Your task to perform on an android device: Where can I buy a nice beach sandals? Image 0: 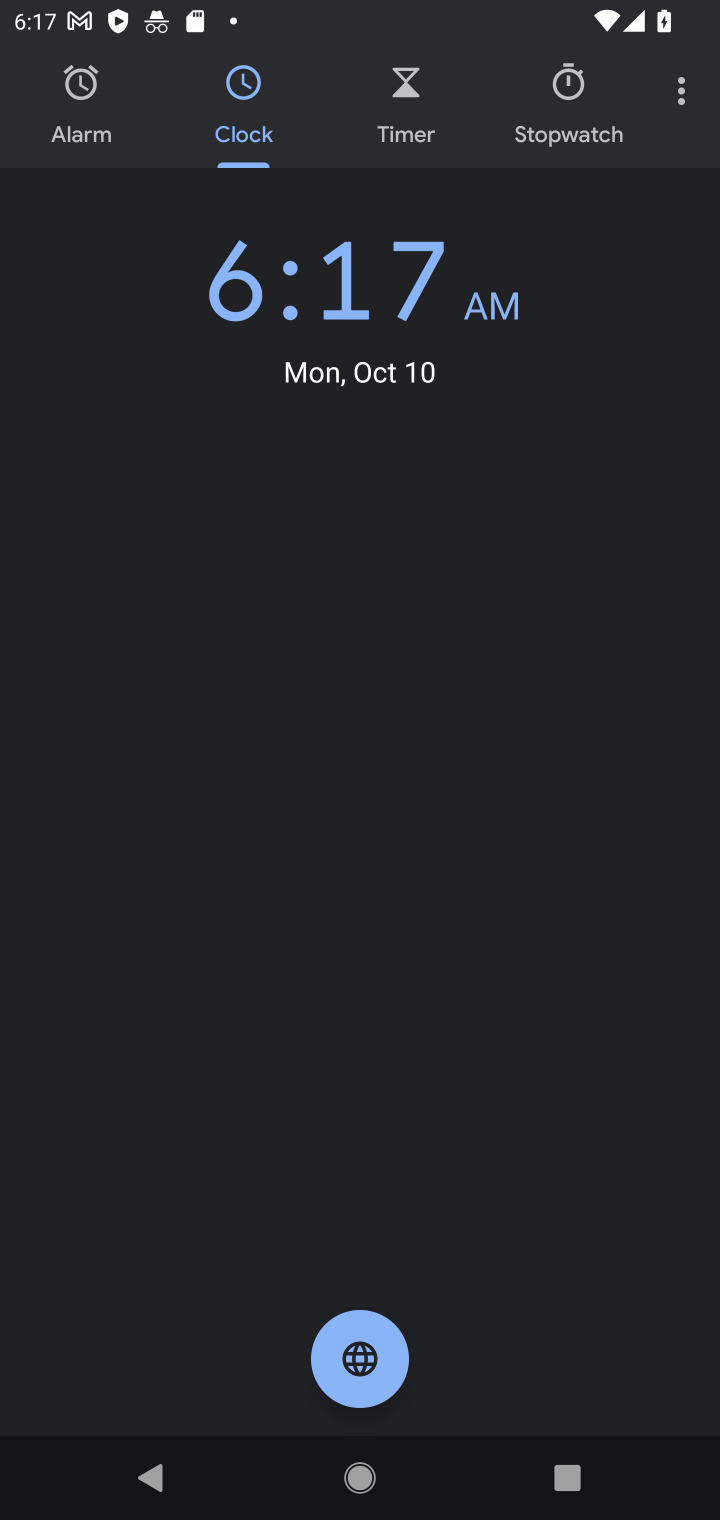
Step 0: press home button
Your task to perform on an android device: Where can I buy a nice beach sandals? Image 1: 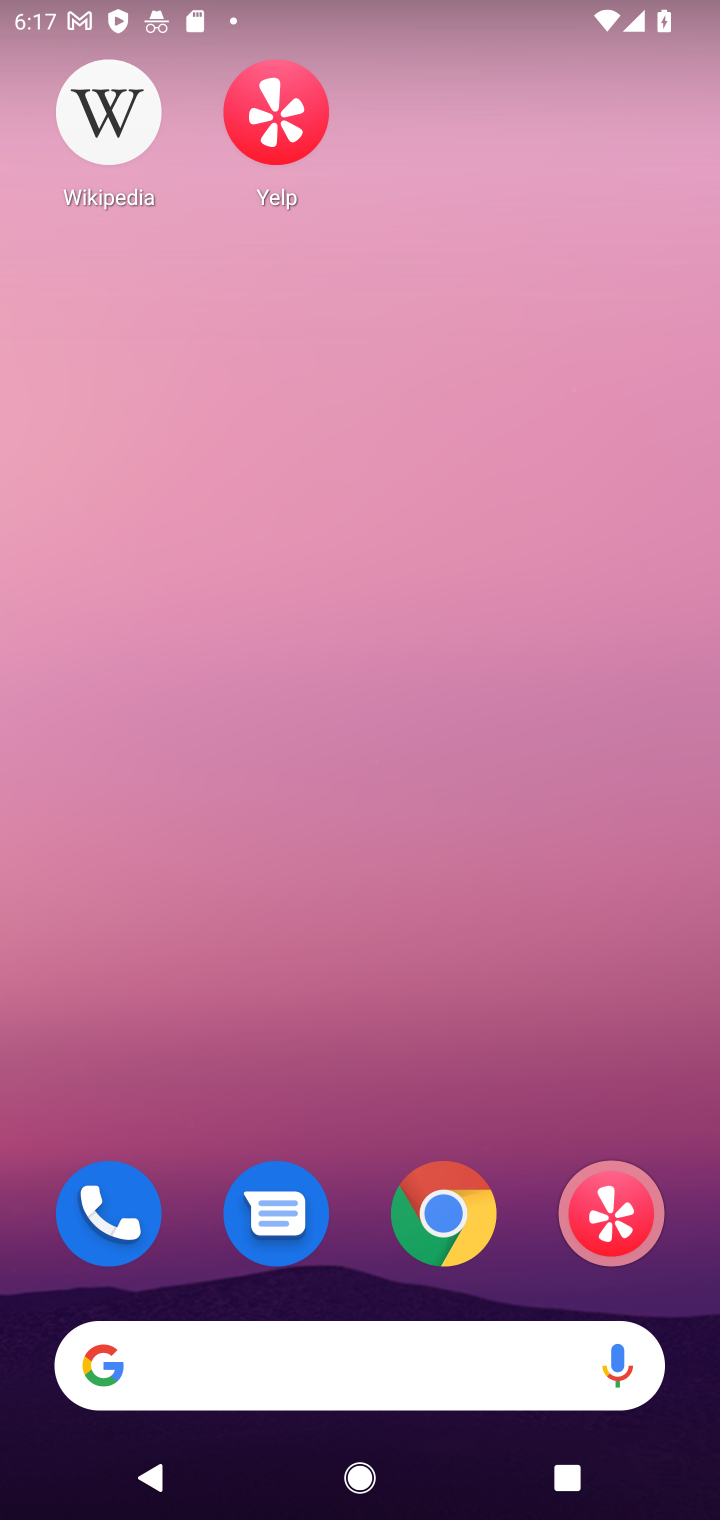
Step 1: drag from (385, 1073) to (258, 11)
Your task to perform on an android device: Where can I buy a nice beach sandals? Image 2: 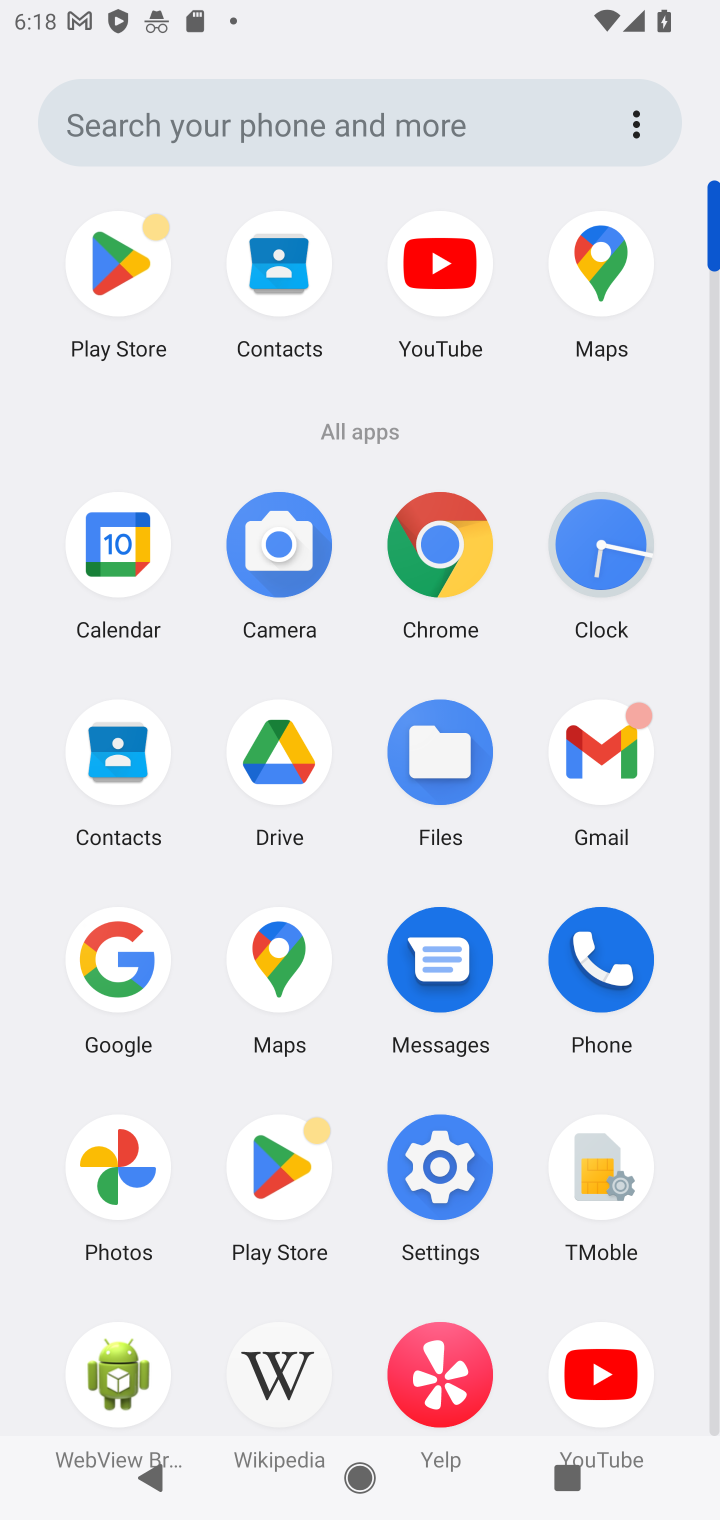
Step 2: click (128, 945)
Your task to perform on an android device: Where can I buy a nice beach sandals? Image 3: 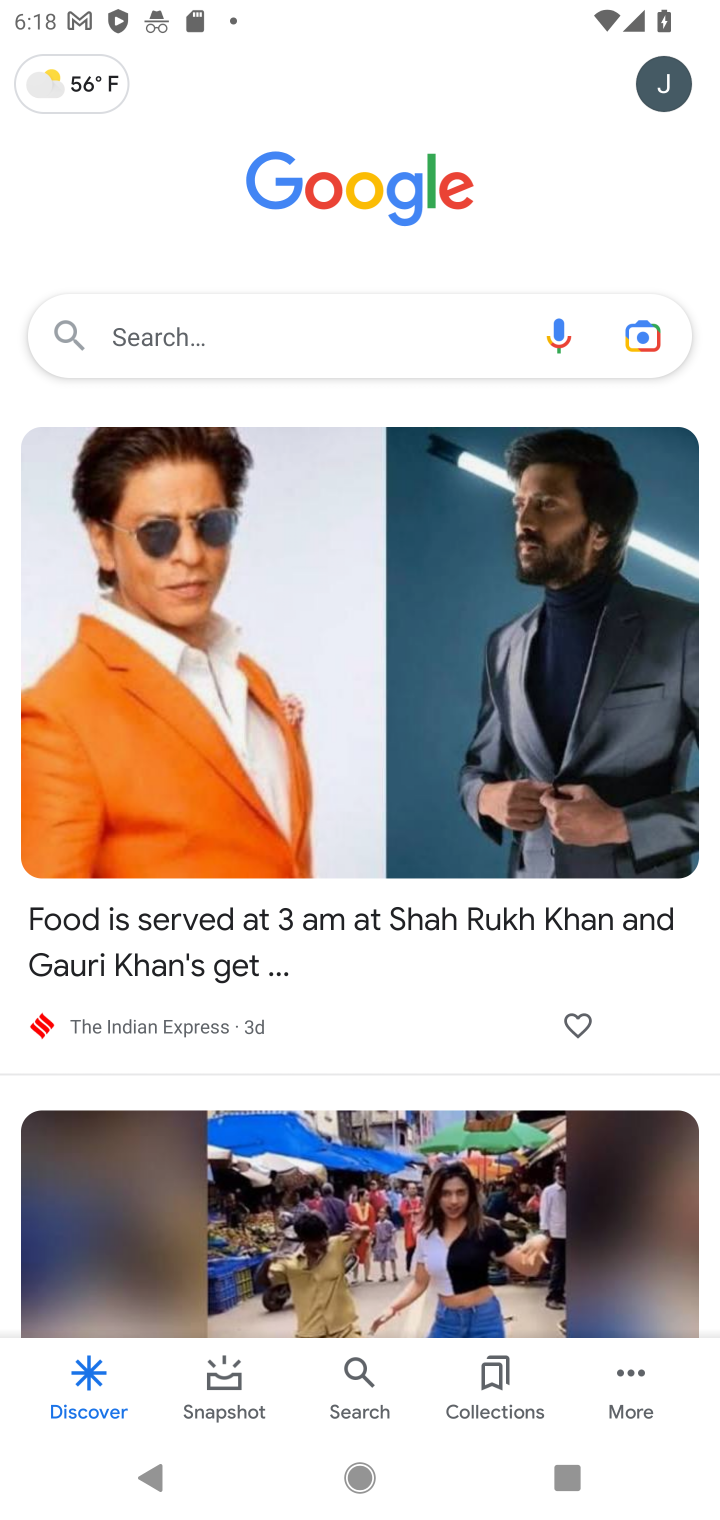
Step 3: click (281, 334)
Your task to perform on an android device: Where can I buy a nice beach sandals? Image 4: 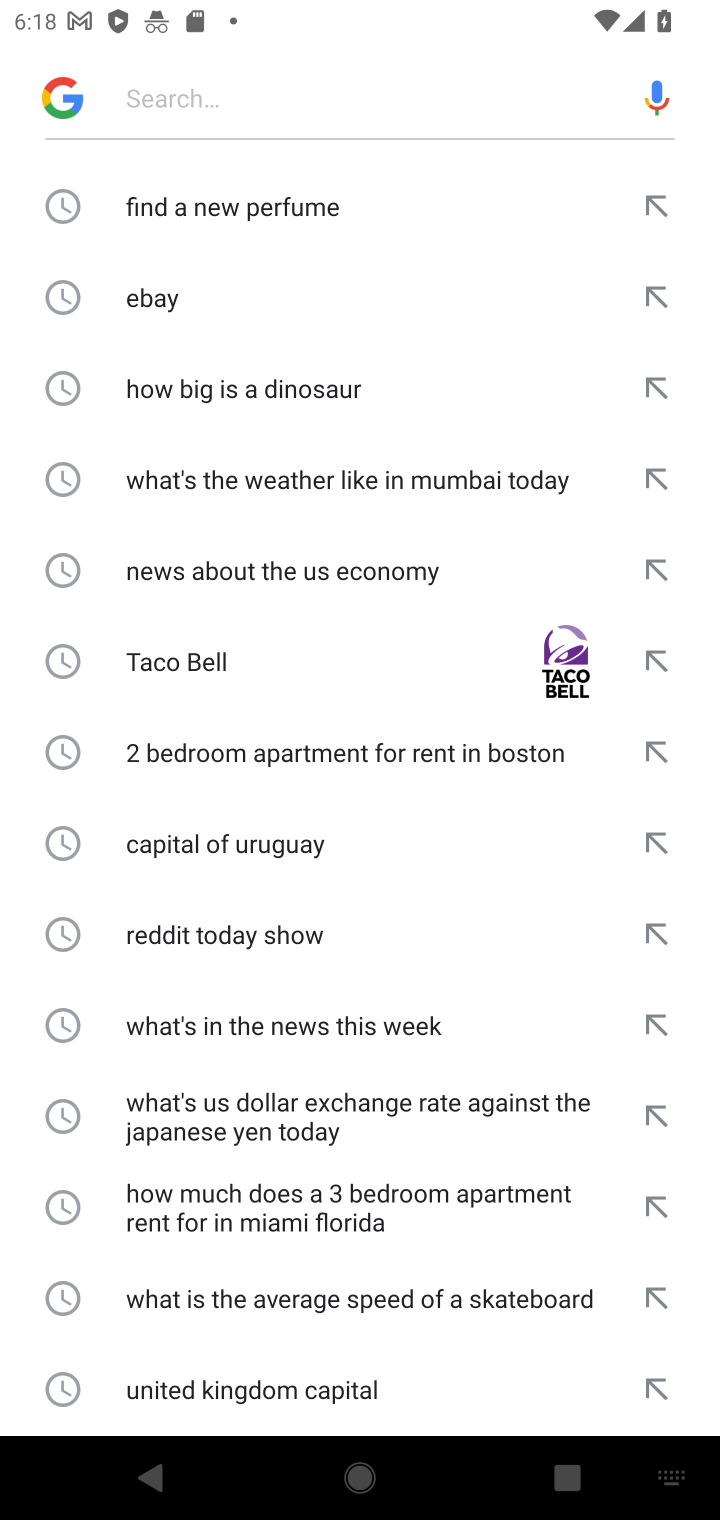
Step 4: click (194, 106)
Your task to perform on an android device: Where can I buy a nice beach sandals? Image 5: 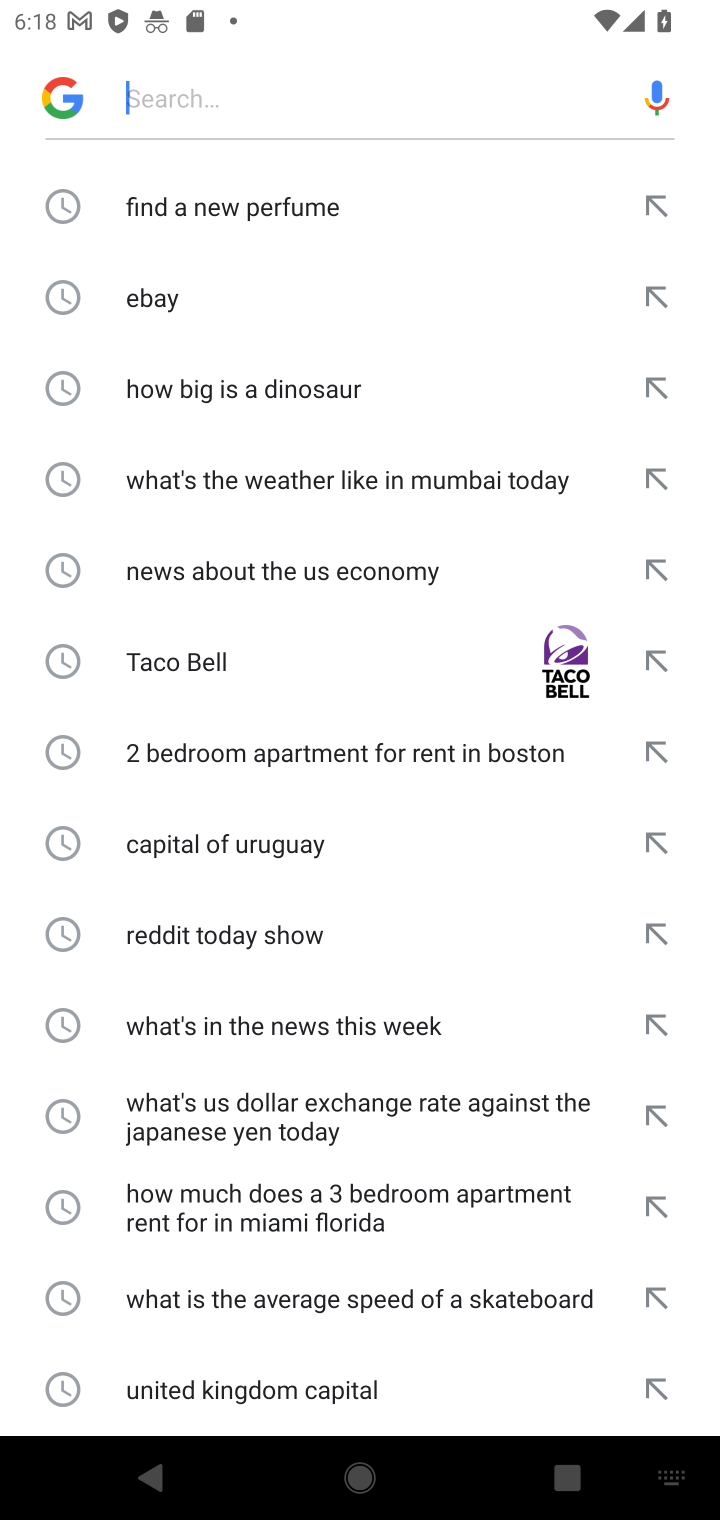
Step 5: type "Where can I buy a nice beach sandals?"
Your task to perform on an android device: Where can I buy a nice beach sandals? Image 6: 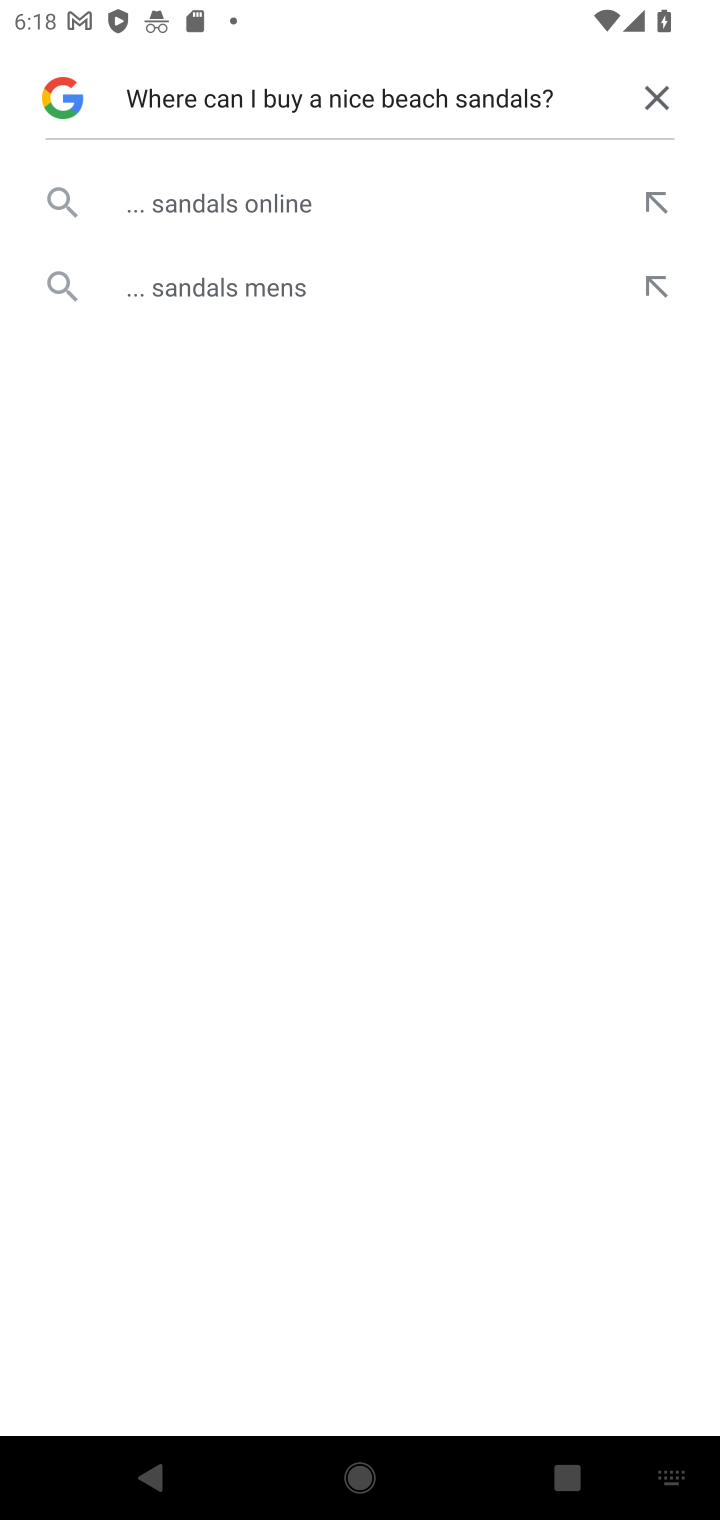
Step 6: click (355, 205)
Your task to perform on an android device: Where can I buy a nice beach sandals? Image 7: 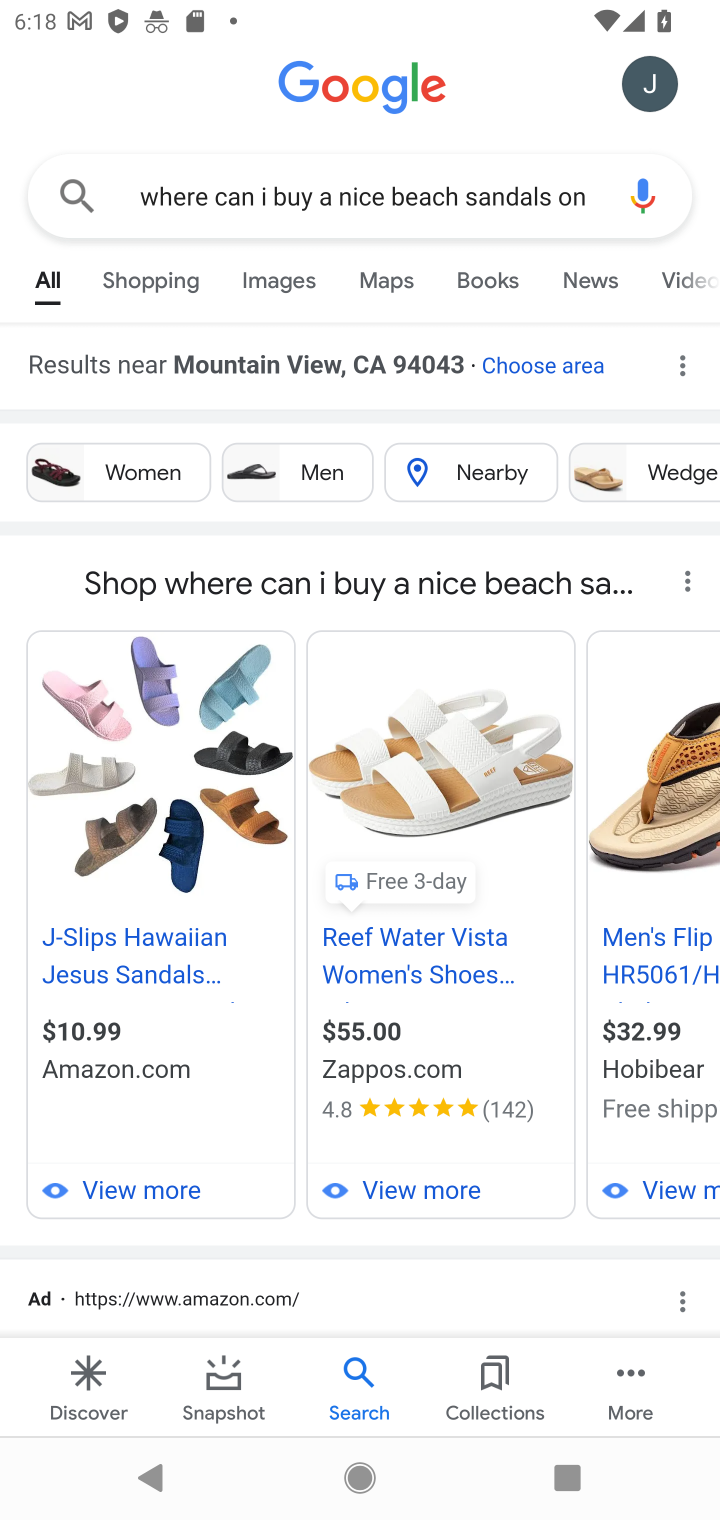
Step 7: task complete